Your task to perform on an android device: Open Google Image 0: 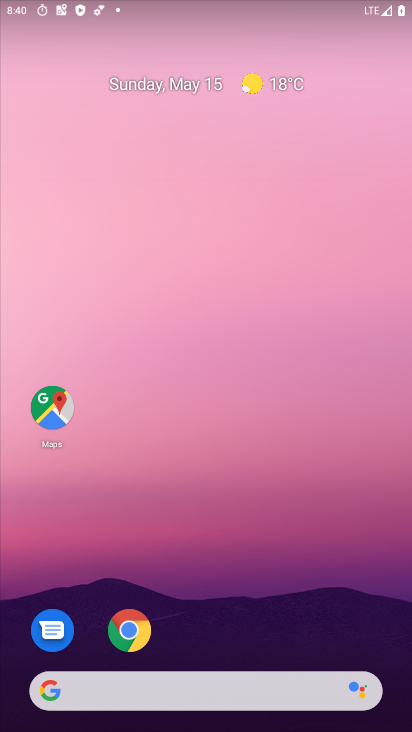
Step 0: drag from (201, 589) to (222, 5)
Your task to perform on an android device: Open Google Image 1: 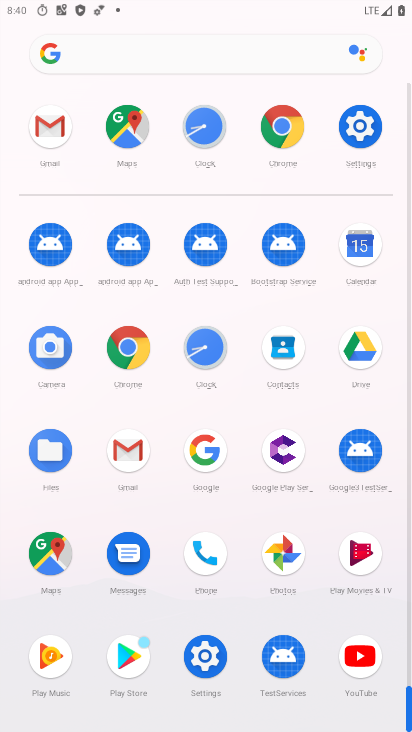
Step 1: click (201, 455)
Your task to perform on an android device: Open Google Image 2: 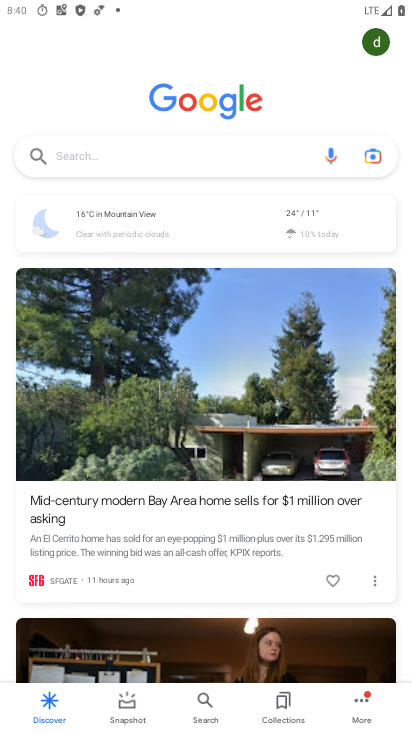
Step 2: task complete